Your task to perform on an android device: change notifications settings Image 0: 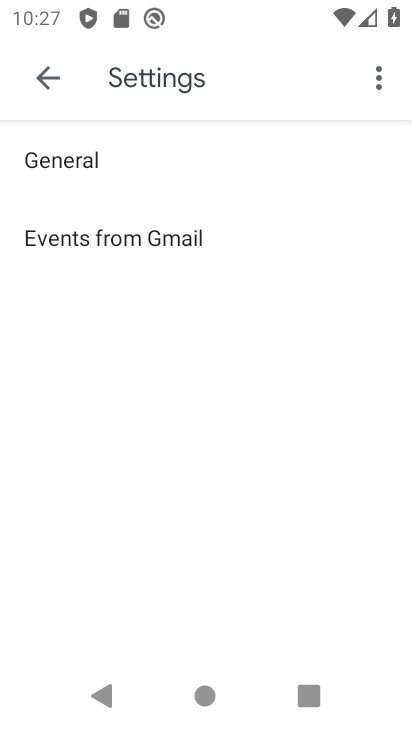
Step 0: press home button
Your task to perform on an android device: change notifications settings Image 1: 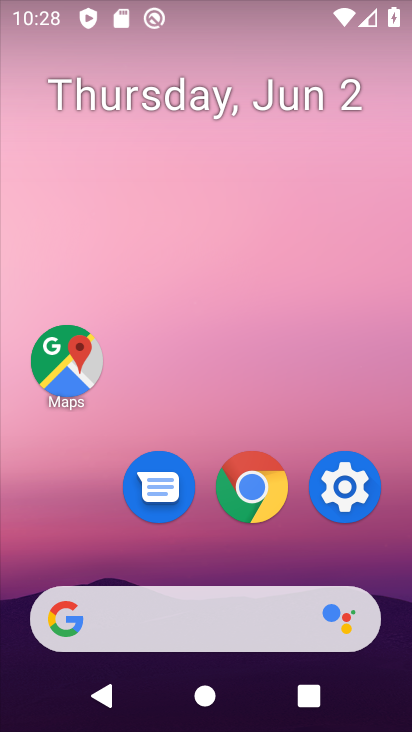
Step 1: click (341, 498)
Your task to perform on an android device: change notifications settings Image 2: 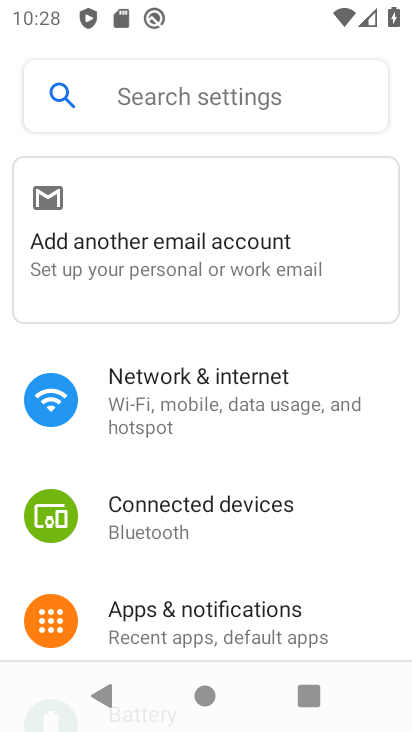
Step 2: click (140, 95)
Your task to perform on an android device: change notifications settings Image 3: 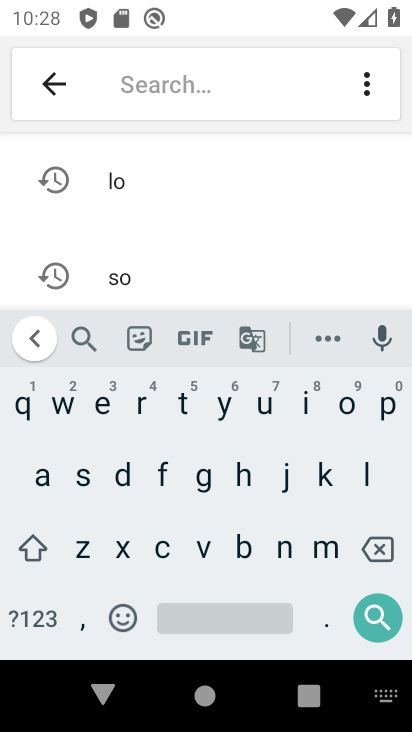
Step 3: click (276, 552)
Your task to perform on an android device: change notifications settings Image 4: 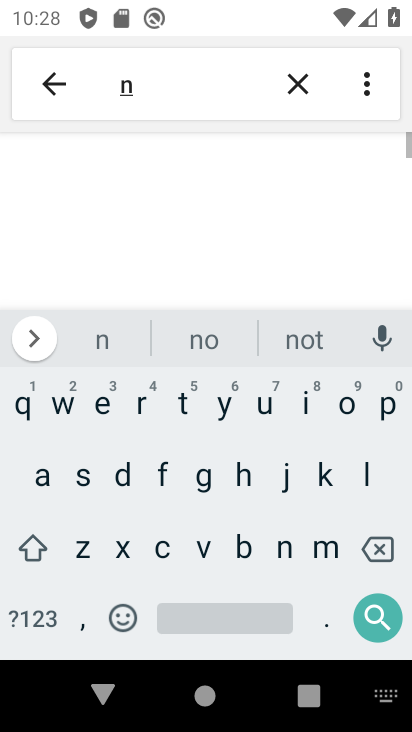
Step 4: click (348, 424)
Your task to perform on an android device: change notifications settings Image 5: 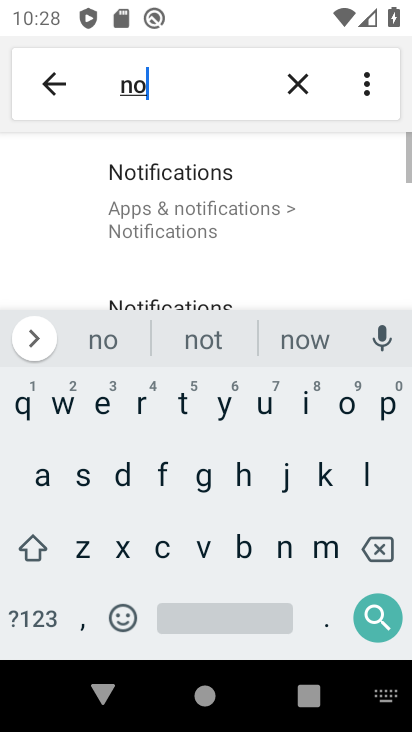
Step 5: click (138, 214)
Your task to perform on an android device: change notifications settings Image 6: 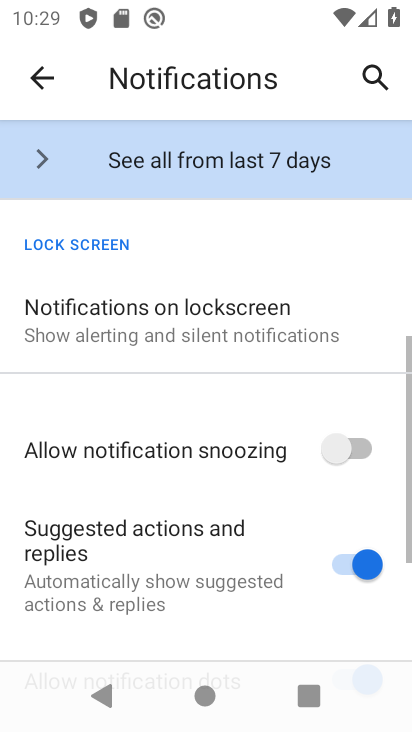
Step 6: click (92, 326)
Your task to perform on an android device: change notifications settings Image 7: 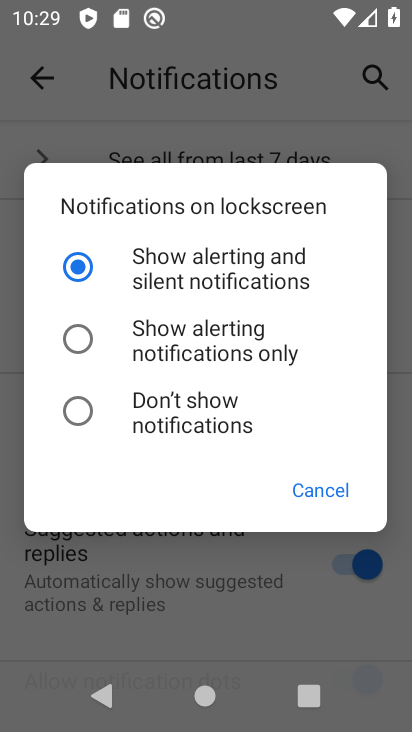
Step 7: task complete